Your task to perform on an android device: turn off improve location accuracy Image 0: 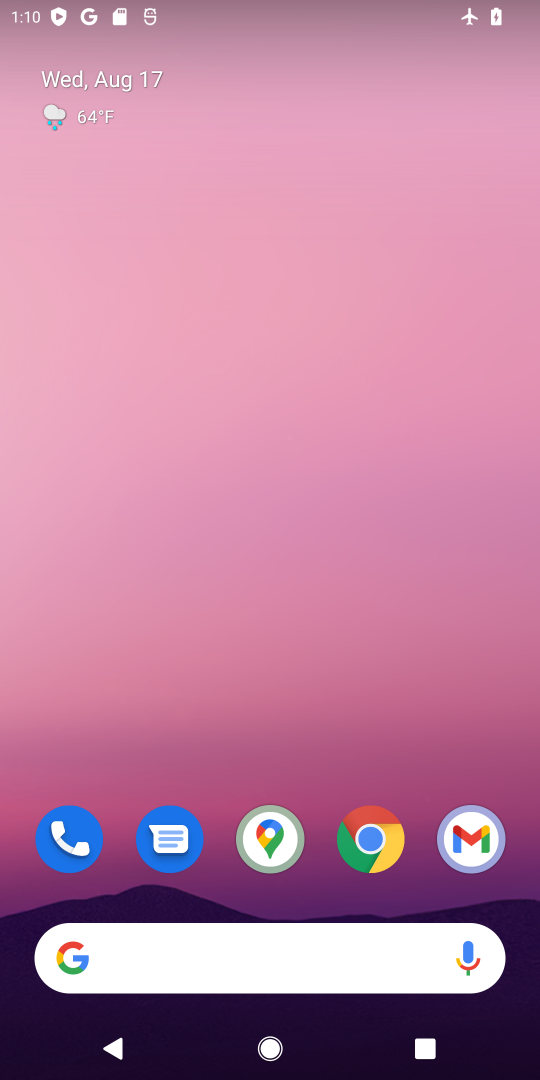
Step 0: drag from (237, 960) to (303, 87)
Your task to perform on an android device: turn off improve location accuracy Image 1: 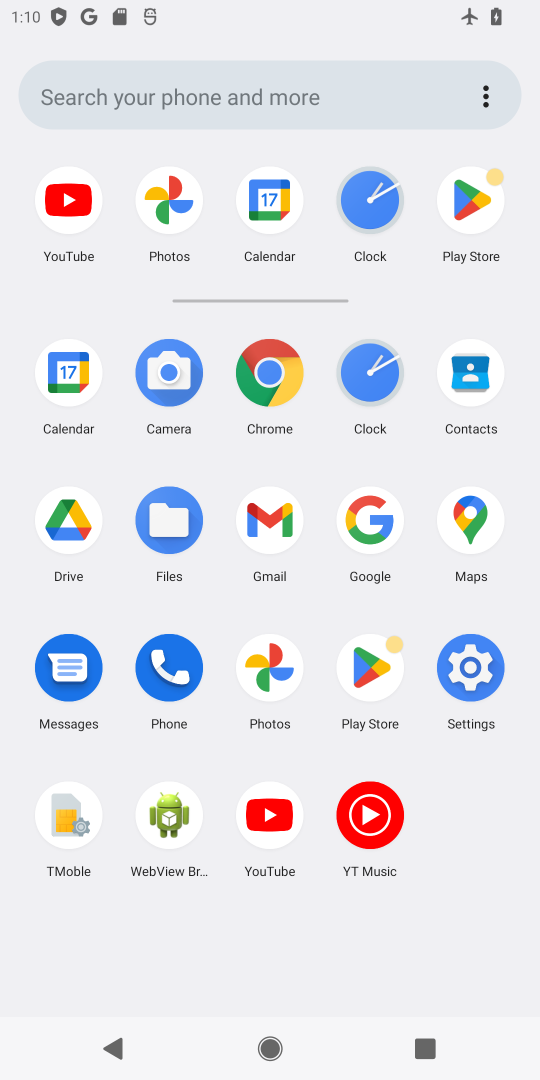
Step 1: click (468, 669)
Your task to perform on an android device: turn off improve location accuracy Image 2: 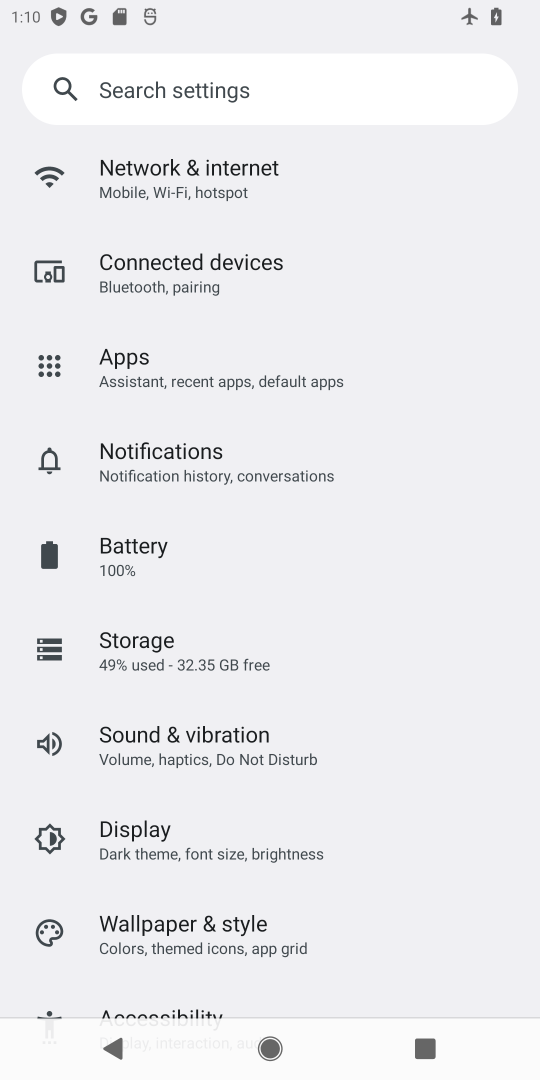
Step 2: drag from (195, 775) to (291, 544)
Your task to perform on an android device: turn off improve location accuracy Image 3: 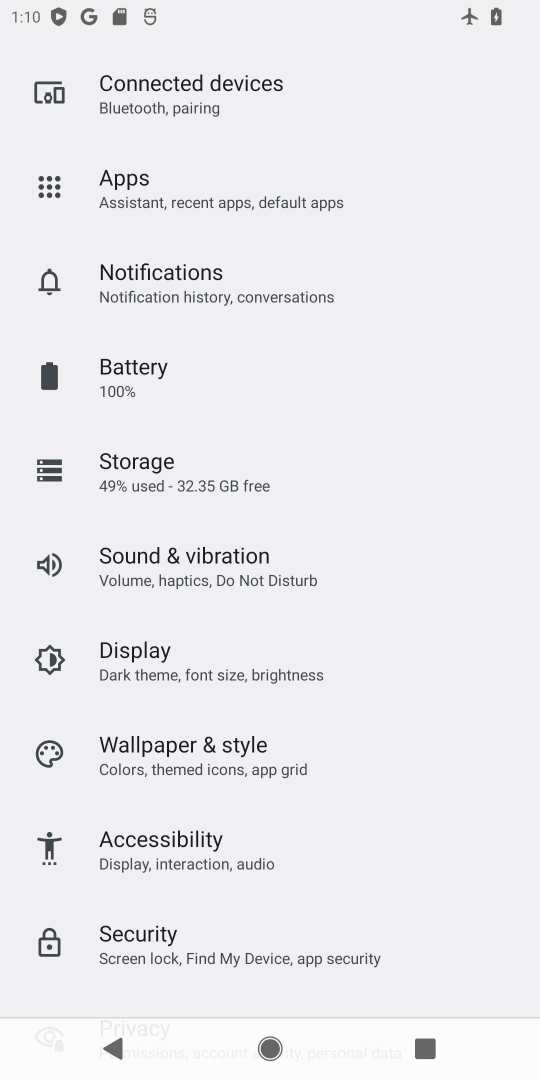
Step 3: drag from (185, 895) to (247, 728)
Your task to perform on an android device: turn off improve location accuracy Image 4: 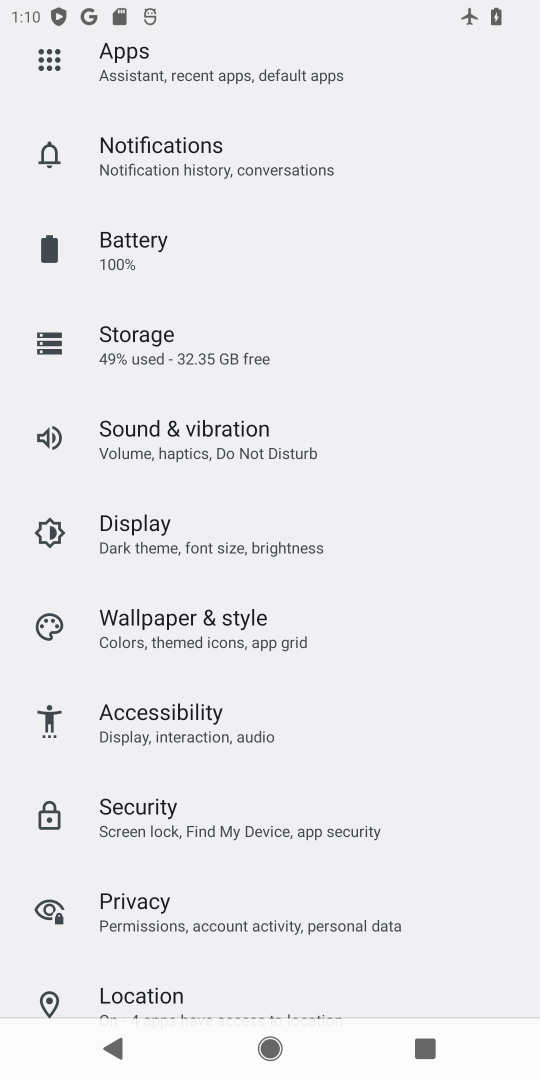
Step 4: drag from (186, 871) to (237, 744)
Your task to perform on an android device: turn off improve location accuracy Image 5: 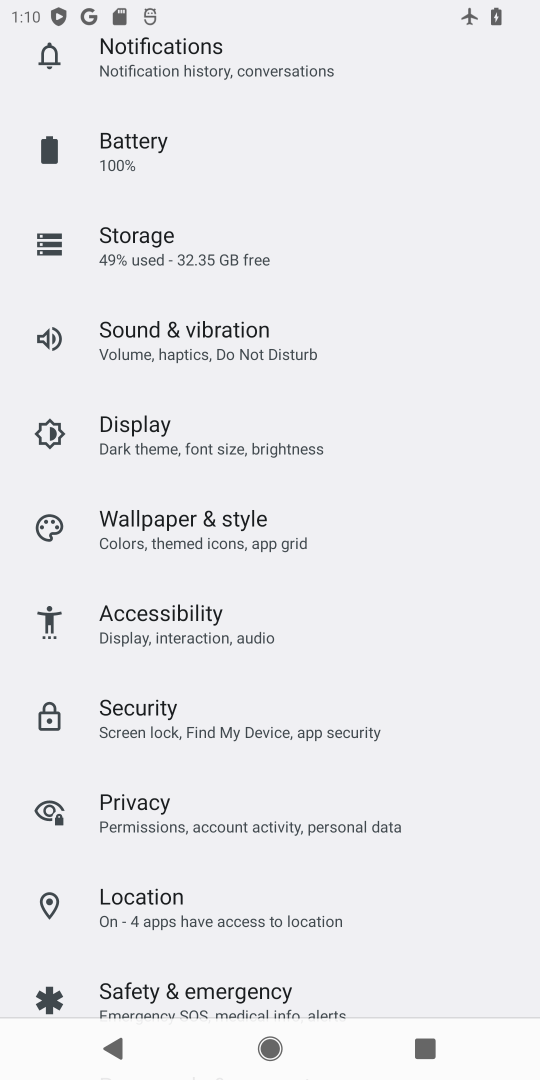
Step 5: click (150, 894)
Your task to perform on an android device: turn off improve location accuracy Image 6: 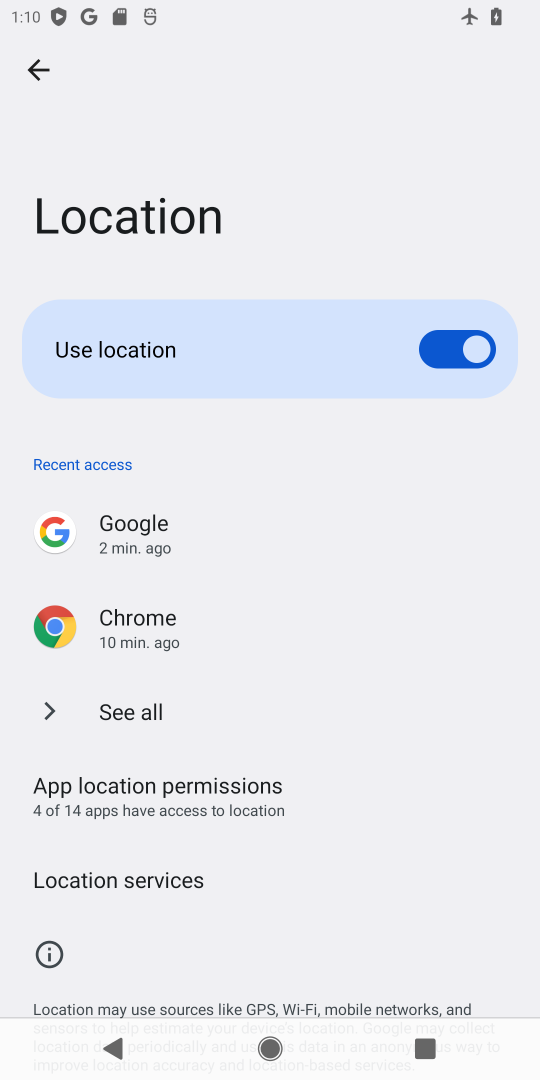
Step 6: click (154, 881)
Your task to perform on an android device: turn off improve location accuracy Image 7: 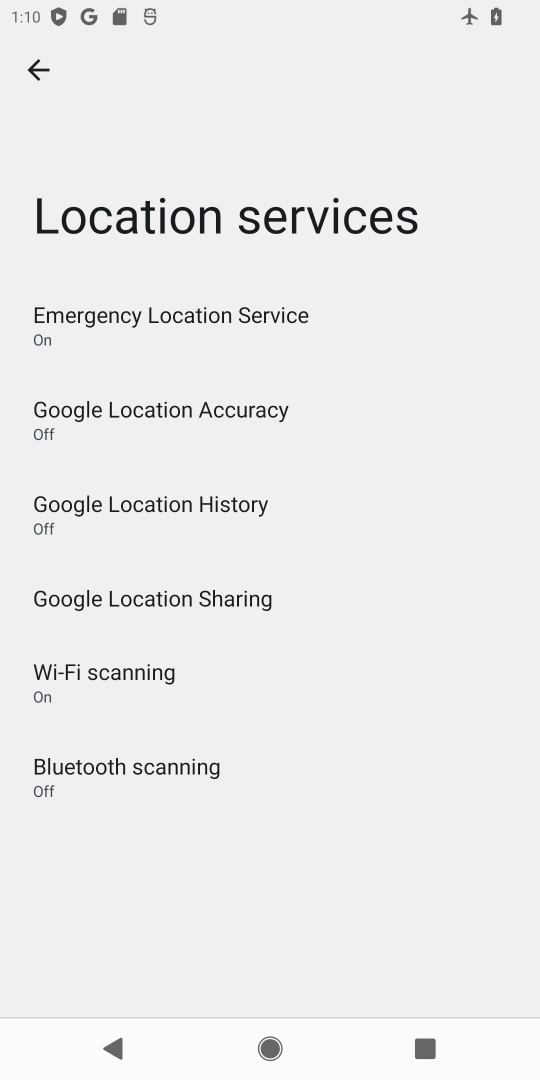
Step 7: click (275, 416)
Your task to perform on an android device: turn off improve location accuracy Image 8: 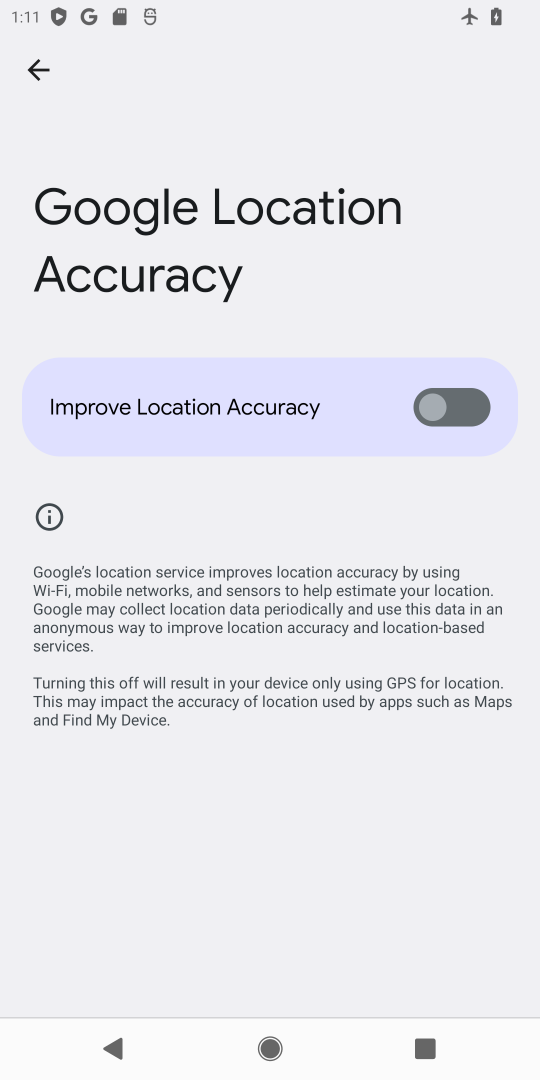
Step 8: task complete